Your task to perform on an android device: turn on data saver in the chrome app Image 0: 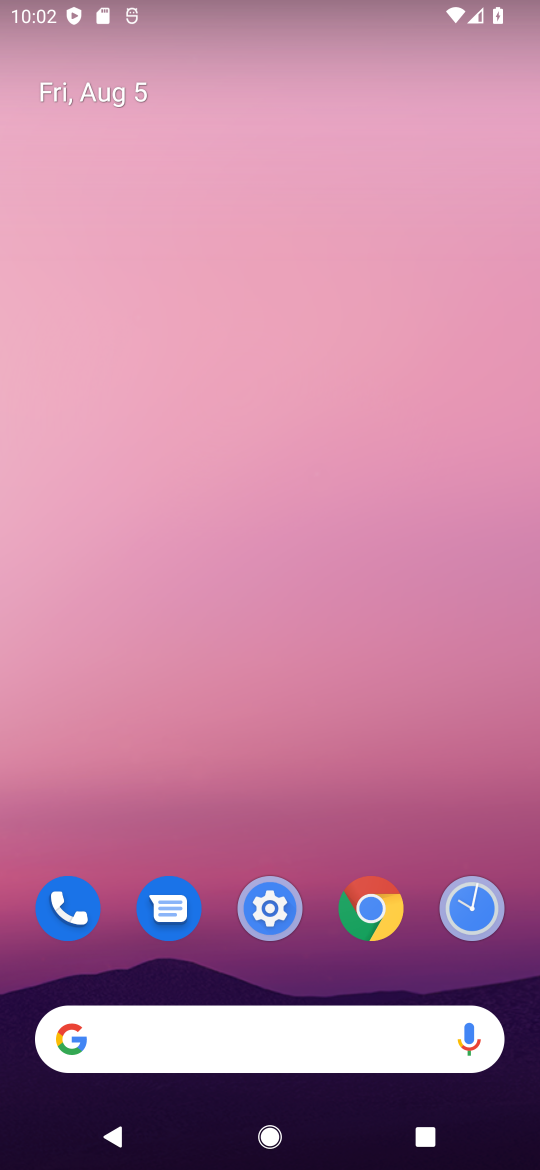
Step 0: task complete